Your task to perform on an android device: Toggle the flashlight Image 0: 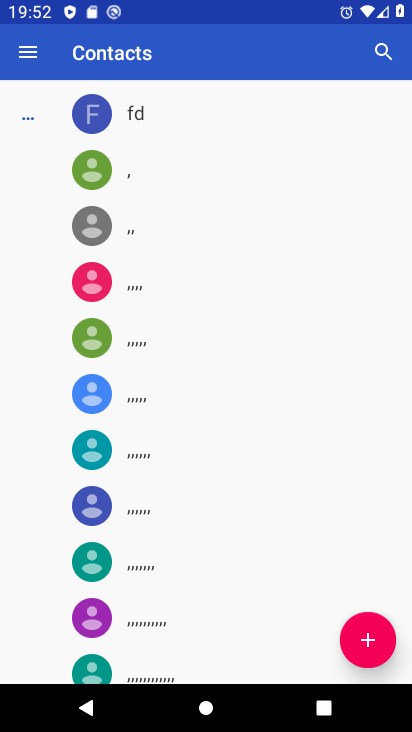
Step 0: press home button
Your task to perform on an android device: Toggle the flashlight Image 1: 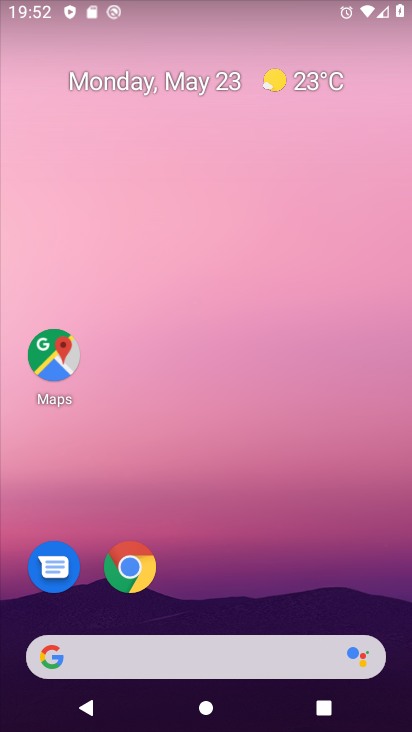
Step 1: drag from (289, 596) to (318, 185)
Your task to perform on an android device: Toggle the flashlight Image 2: 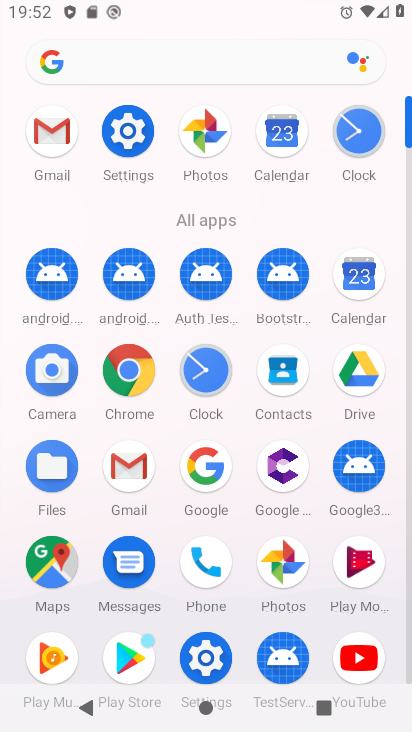
Step 2: click (125, 126)
Your task to perform on an android device: Toggle the flashlight Image 3: 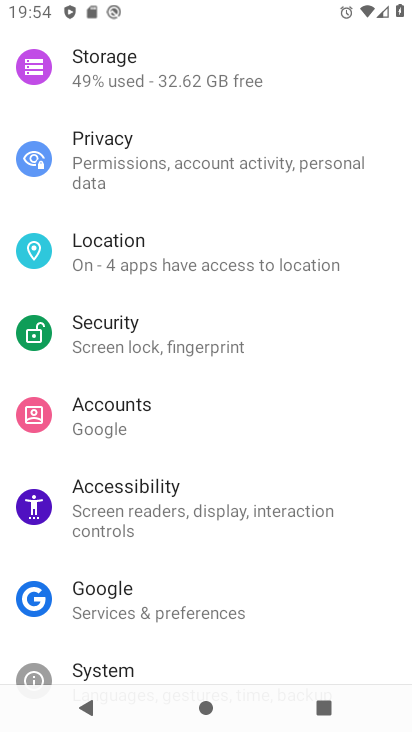
Step 3: task complete